Your task to perform on an android device: turn on notifications settings in the gmail app Image 0: 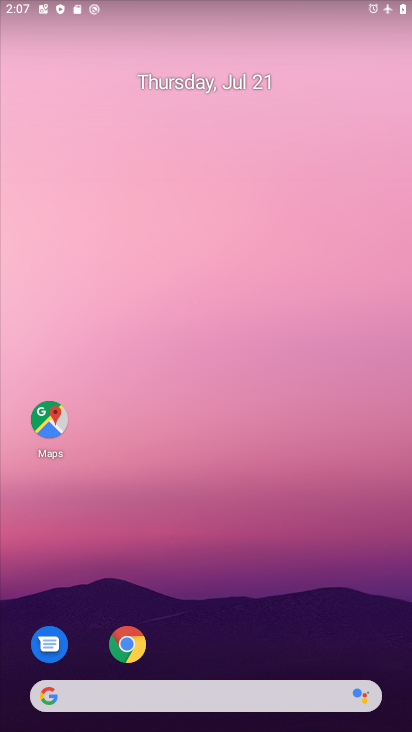
Step 0: drag from (232, 674) to (243, 308)
Your task to perform on an android device: turn on notifications settings in the gmail app Image 1: 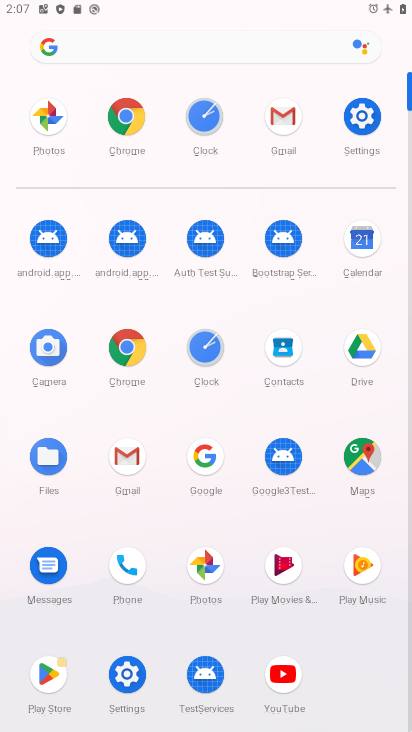
Step 1: click (131, 463)
Your task to perform on an android device: turn on notifications settings in the gmail app Image 2: 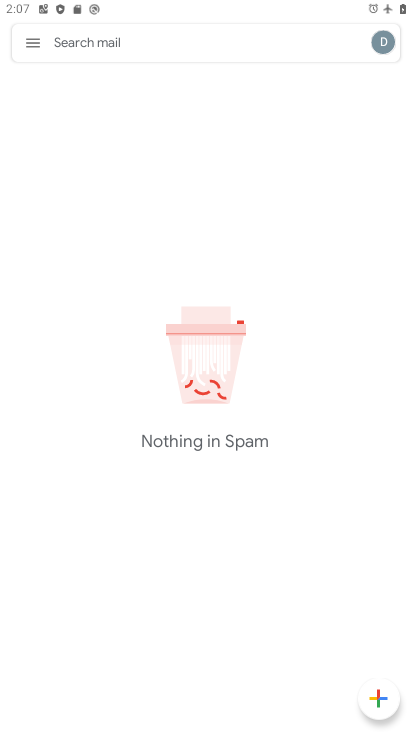
Step 2: click (32, 34)
Your task to perform on an android device: turn on notifications settings in the gmail app Image 3: 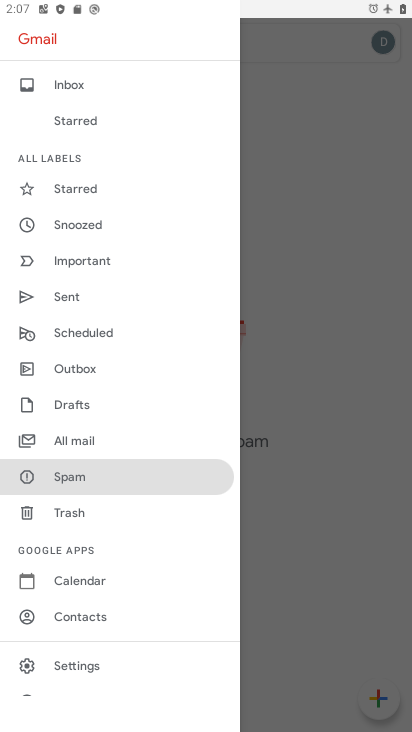
Step 3: click (96, 660)
Your task to perform on an android device: turn on notifications settings in the gmail app Image 4: 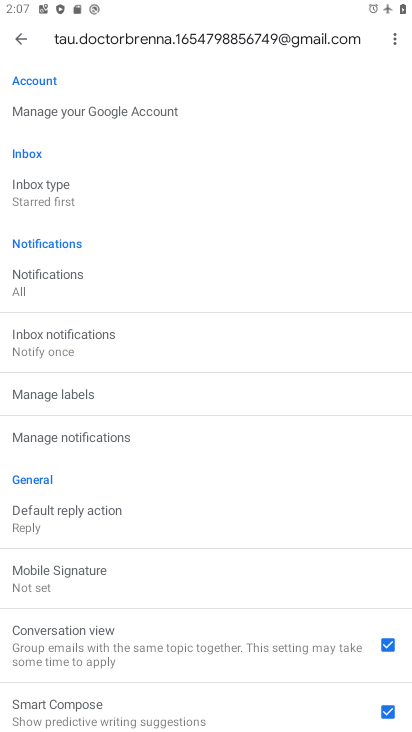
Step 4: click (83, 440)
Your task to perform on an android device: turn on notifications settings in the gmail app Image 5: 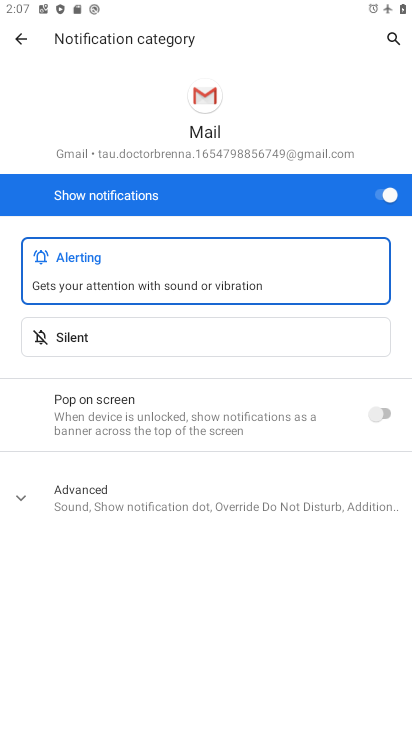
Step 5: task complete